Your task to perform on an android device: Open settings Image 0: 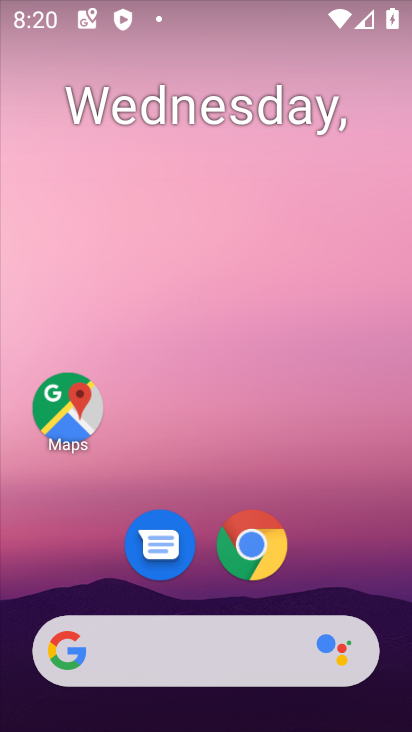
Step 0: drag from (220, 608) to (223, 60)
Your task to perform on an android device: Open settings Image 1: 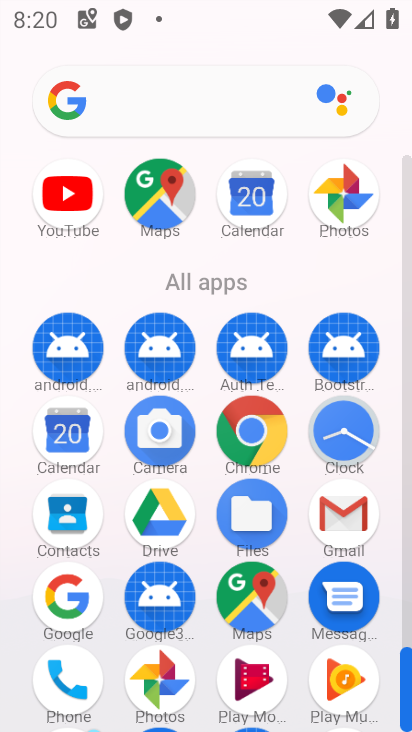
Step 1: drag from (218, 549) to (291, 150)
Your task to perform on an android device: Open settings Image 2: 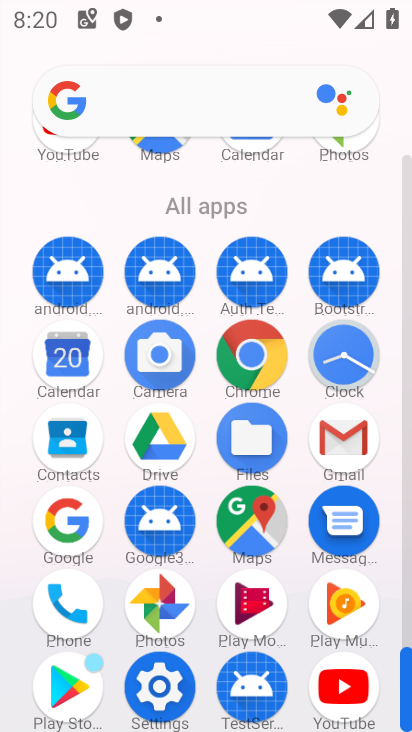
Step 2: click (154, 674)
Your task to perform on an android device: Open settings Image 3: 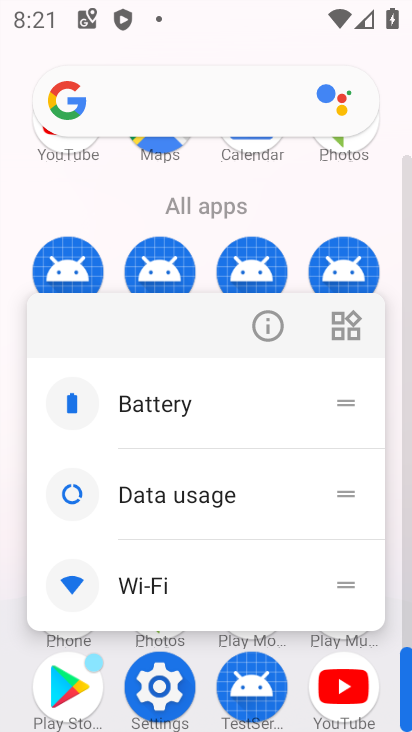
Step 3: click (174, 679)
Your task to perform on an android device: Open settings Image 4: 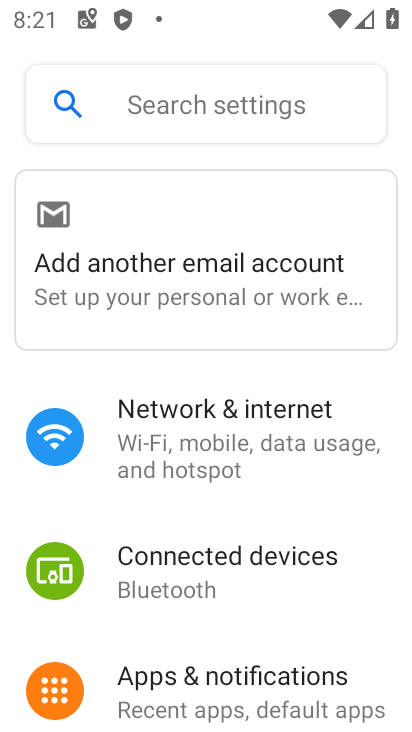
Step 4: task complete